Your task to perform on an android device: turn off improve location accuracy Image 0: 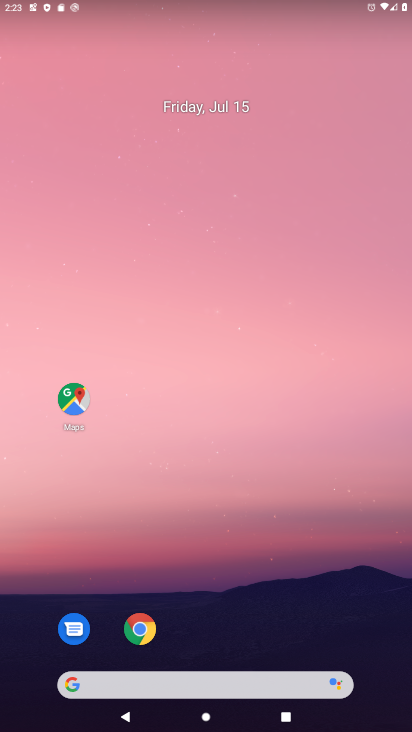
Step 0: drag from (280, 591) to (158, 60)
Your task to perform on an android device: turn off improve location accuracy Image 1: 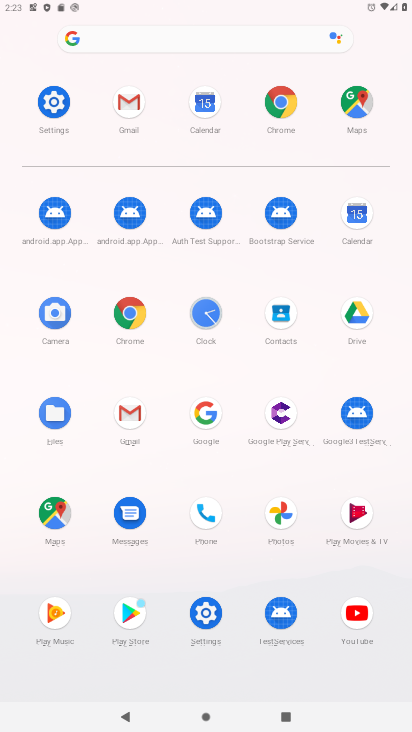
Step 1: click (124, 102)
Your task to perform on an android device: turn off improve location accuracy Image 2: 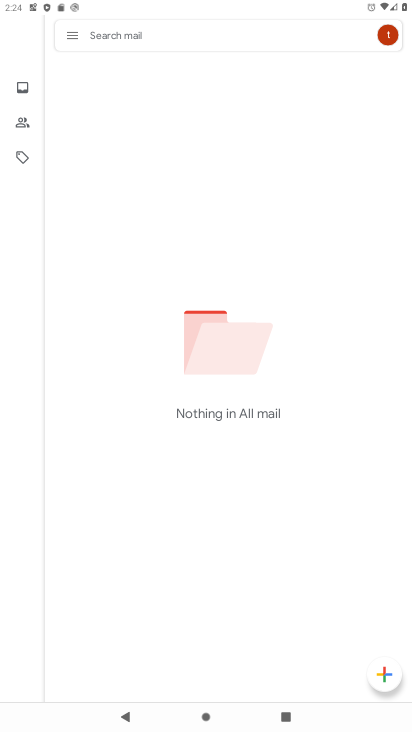
Step 2: press home button
Your task to perform on an android device: turn off improve location accuracy Image 3: 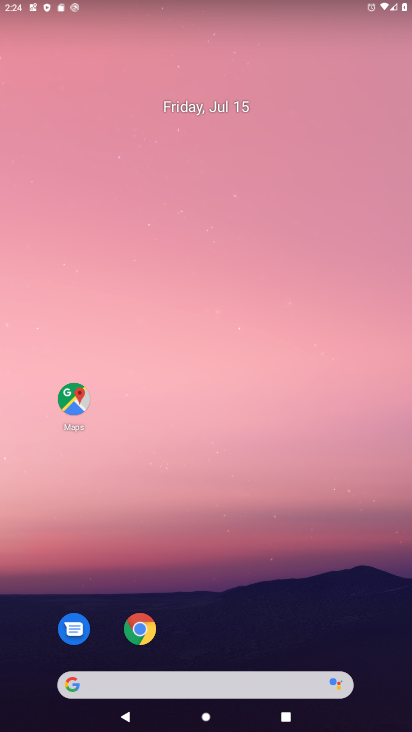
Step 3: drag from (353, 558) to (317, 140)
Your task to perform on an android device: turn off improve location accuracy Image 4: 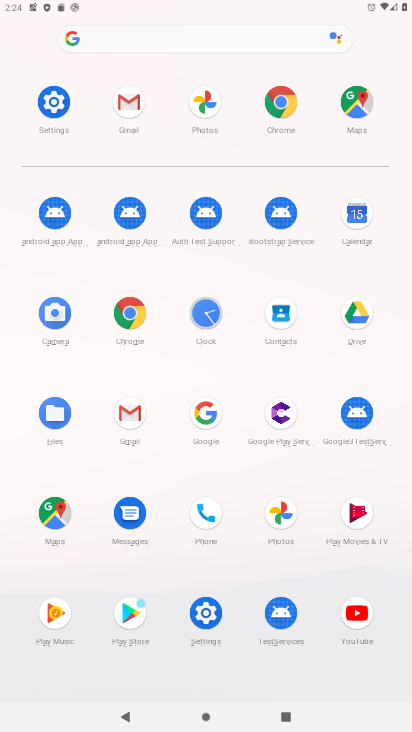
Step 4: click (49, 322)
Your task to perform on an android device: turn off improve location accuracy Image 5: 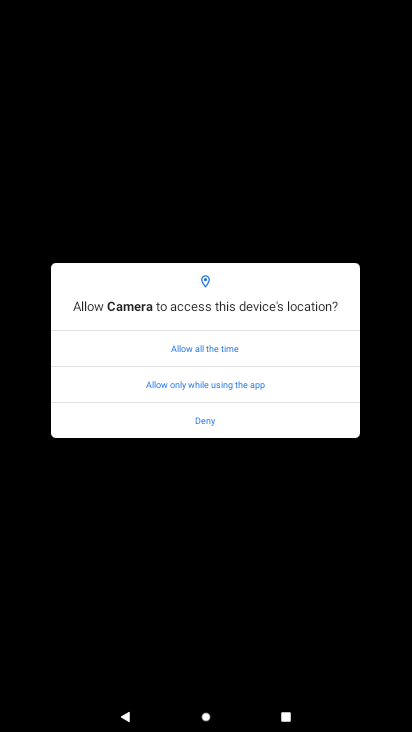
Step 5: press back button
Your task to perform on an android device: turn off improve location accuracy Image 6: 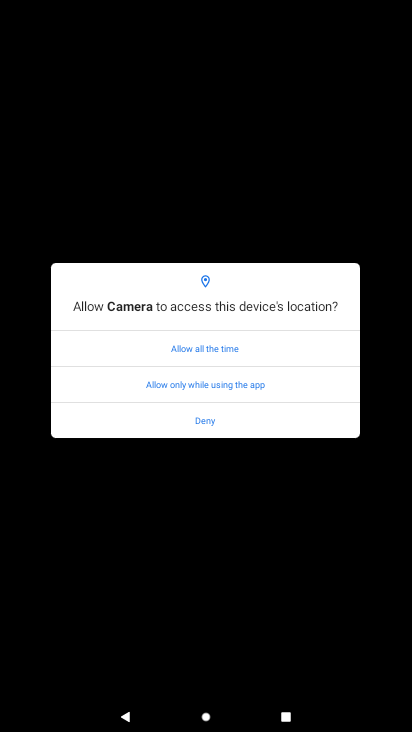
Step 6: press back button
Your task to perform on an android device: turn off improve location accuracy Image 7: 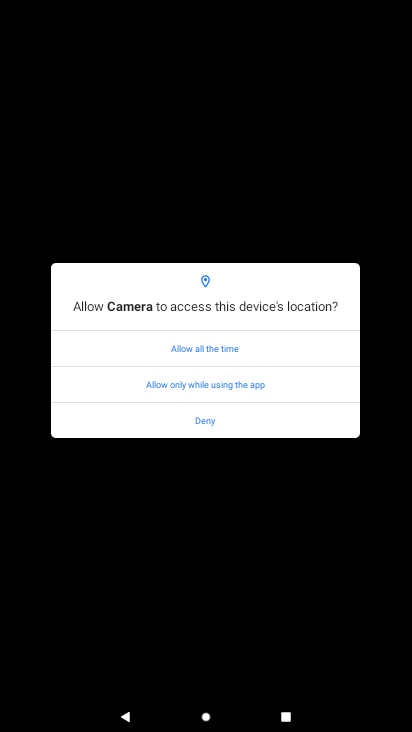
Step 7: press back button
Your task to perform on an android device: turn off improve location accuracy Image 8: 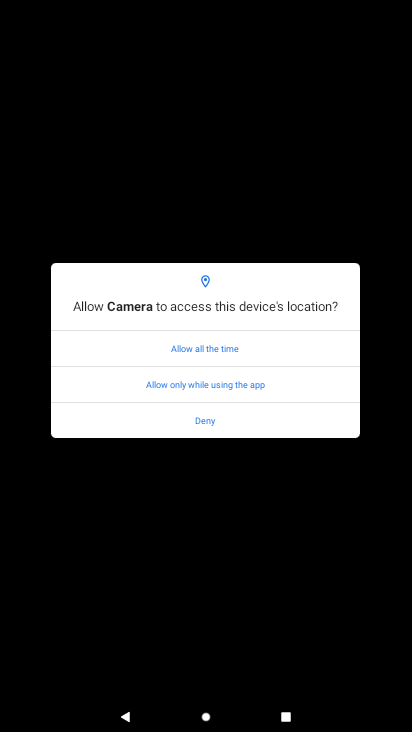
Step 8: press back button
Your task to perform on an android device: turn off improve location accuracy Image 9: 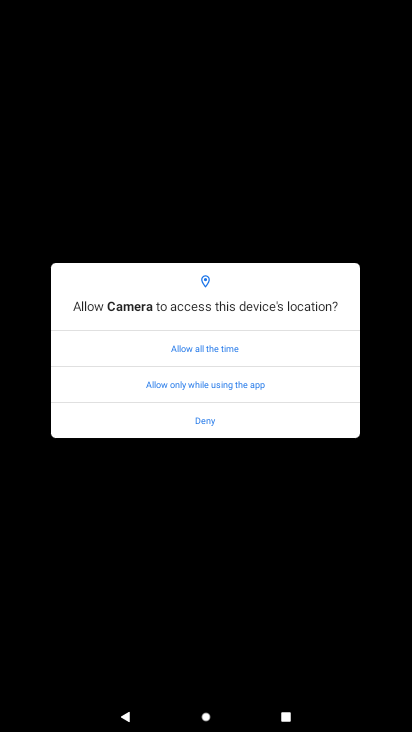
Step 9: press back button
Your task to perform on an android device: turn off improve location accuracy Image 10: 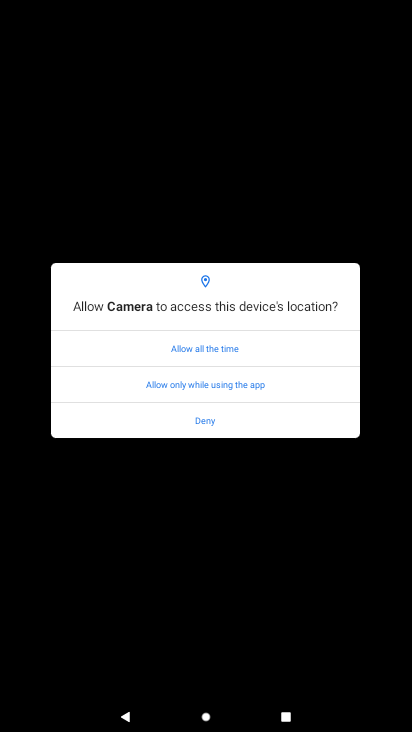
Step 10: press back button
Your task to perform on an android device: turn off improve location accuracy Image 11: 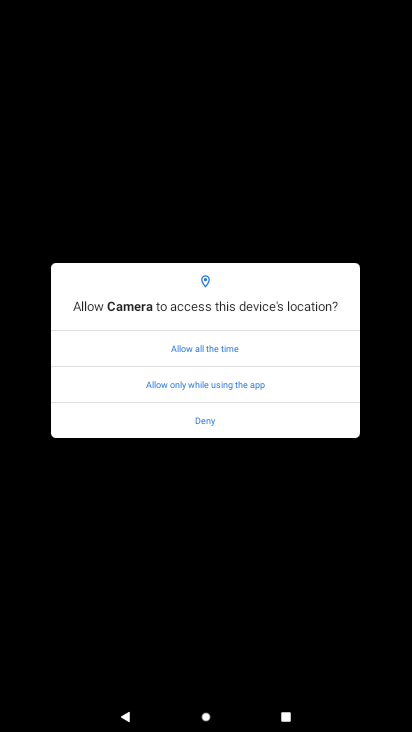
Step 11: press home button
Your task to perform on an android device: turn off improve location accuracy Image 12: 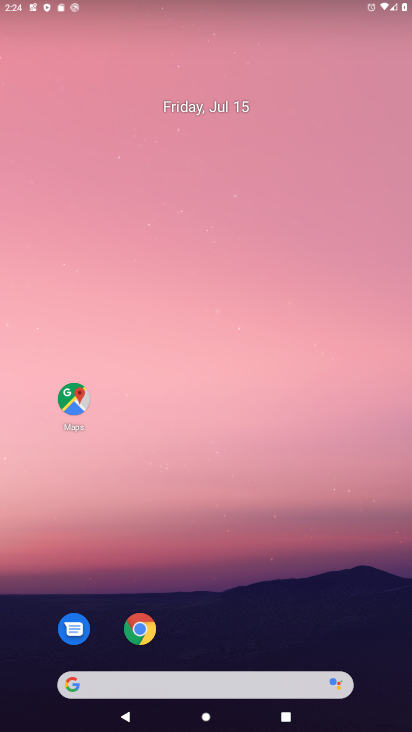
Step 12: drag from (250, 534) to (270, 97)
Your task to perform on an android device: turn off improve location accuracy Image 13: 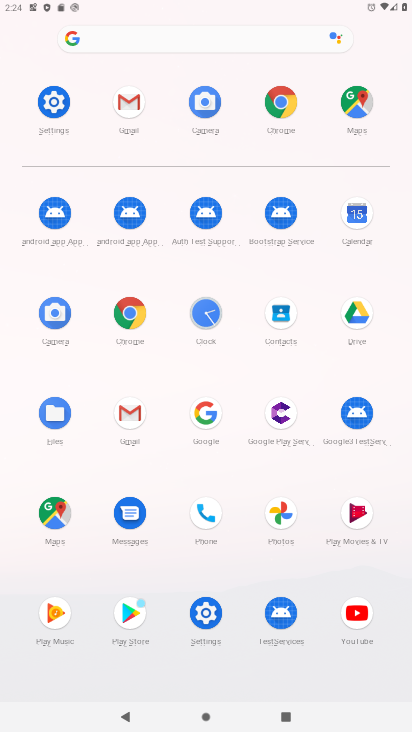
Step 13: click (54, 99)
Your task to perform on an android device: turn off improve location accuracy Image 14: 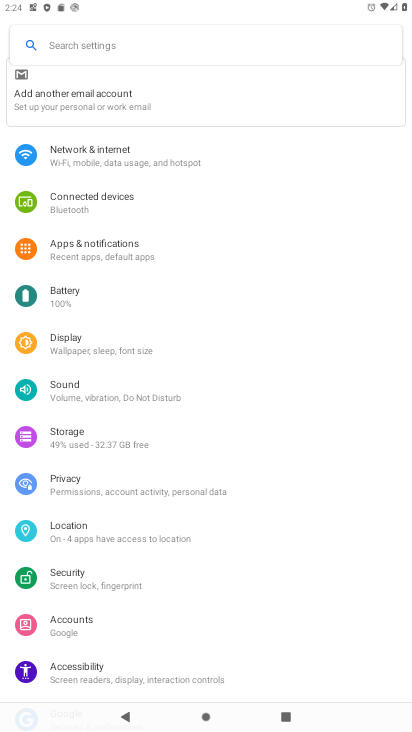
Step 14: click (73, 533)
Your task to perform on an android device: turn off improve location accuracy Image 15: 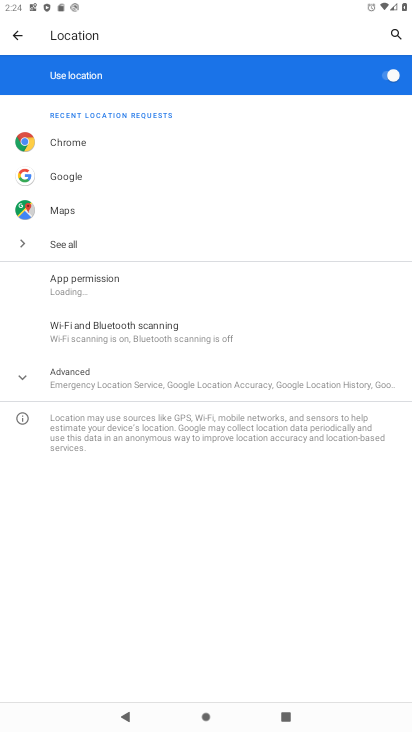
Step 15: click (111, 375)
Your task to perform on an android device: turn off improve location accuracy Image 16: 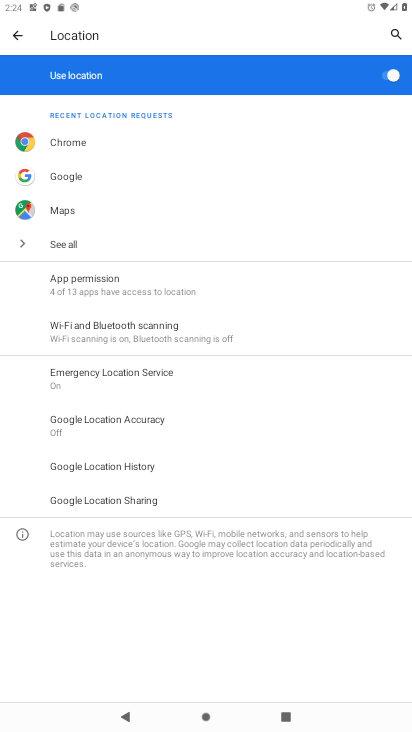
Step 16: click (140, 422)
Your task to perform on an android device: turn off improve location accuracy Image 17: 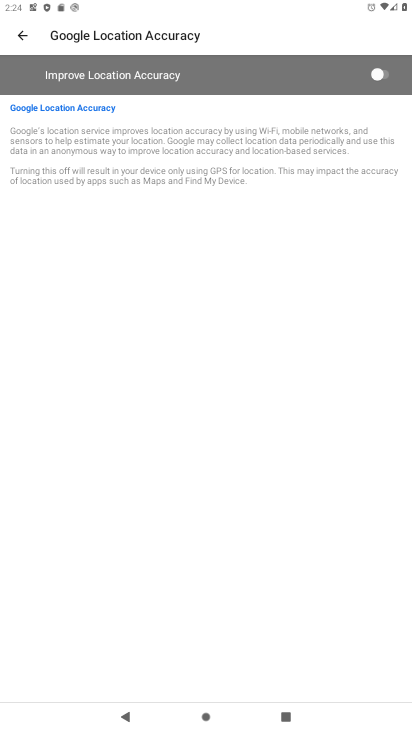
Step 17: task complete